Your task to perform on an android device: toggle data saver in the chrome app Image 0: 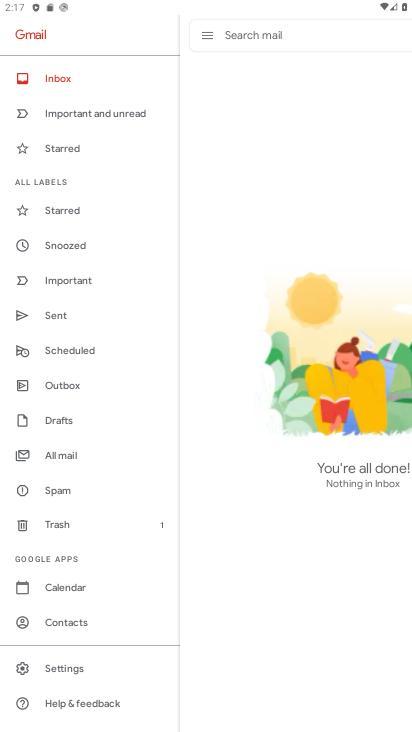
Step 0: press home button
Your task to perform on an android device: toggle data saver in the chrome app Image 1: 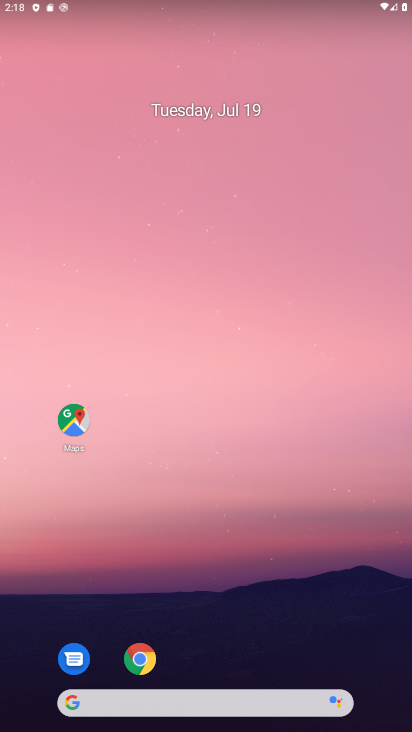
Step 1: drag from (261, 605) to (155, 47)
Your task to perform on an android device: toggle data saver in the chrome app Image 2: 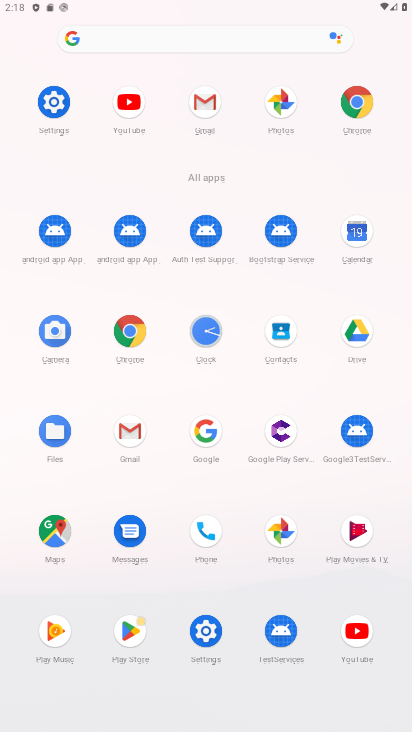
Step 2: click (353, 115)
Your task to perform on an android device: toggle data saver in the chrome app Image 3: 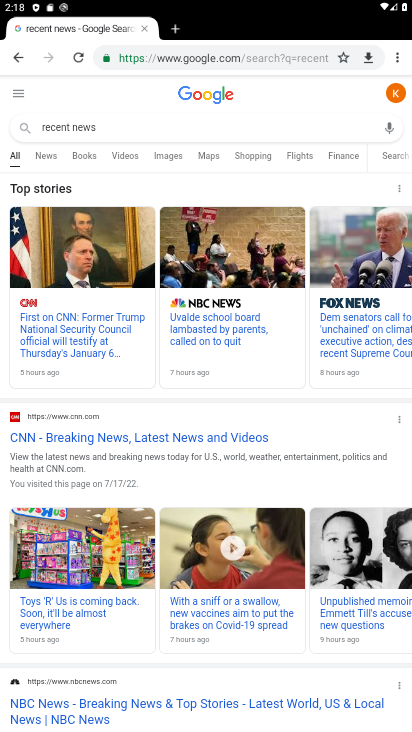
Step 3: click (401, 64)
Your task to perform on an android device: toggle data saver in the chrome app Image 4: 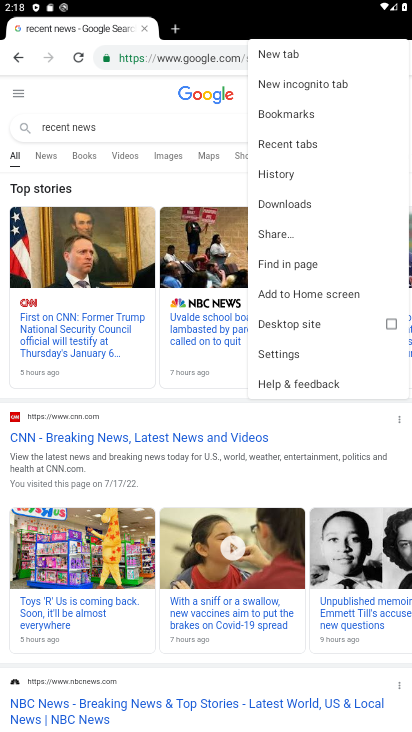
Step 4: click (332, 353)
Your task to perform on an android device: toggle data saver in the chrome app Image 5: 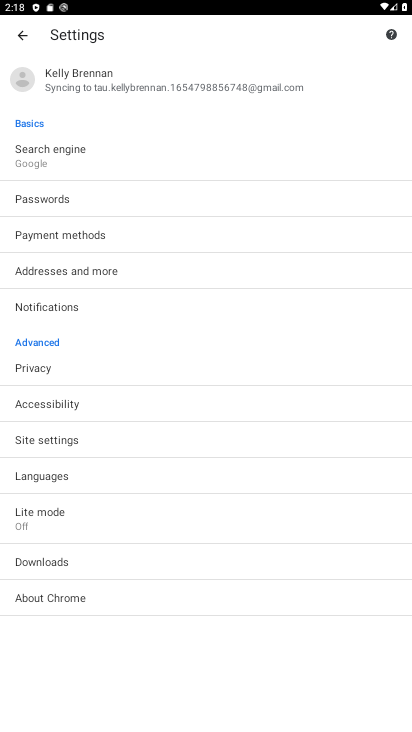
Step 5: click (119, 518)
Your task to perform on an android device: toggle data saver in the chrome app Image 6: 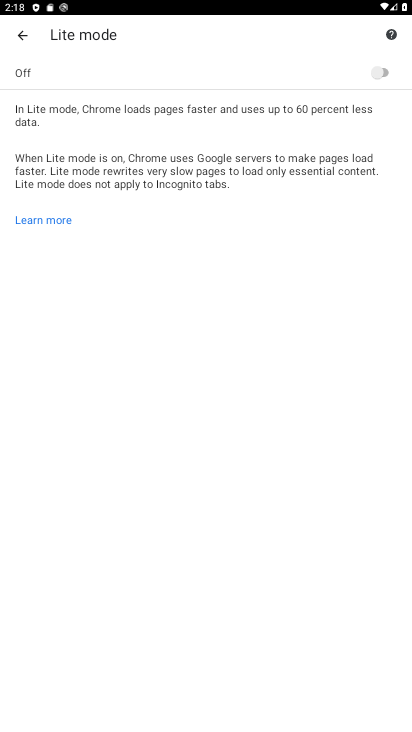
Step 6: click (386, 72)
Your task to perform on an android device: toggle data saver in the chrome app Image 7: 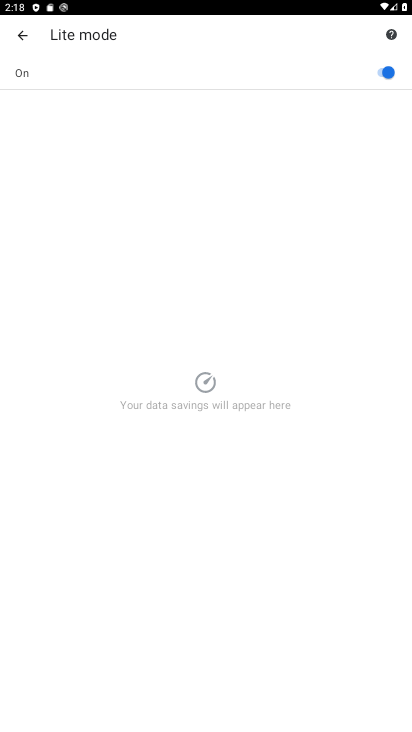
Step 7: task complete